Your task to perform on an android device: check the backup settings in the google photos Image 0: 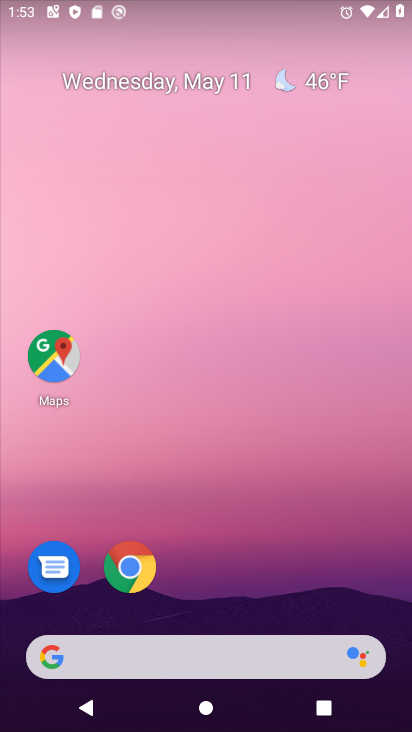
Step 0: drag from (193, 630) to (161, 3)
Your task to perform on an android device: check the backup settings in the google photos Image 1: 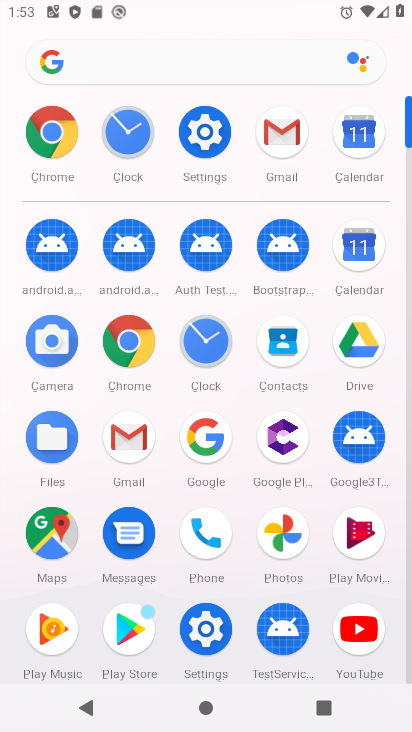
Step 1: click (281, 535)
Your task to perform on an android device: check the backup settings in the google photos Image 2: 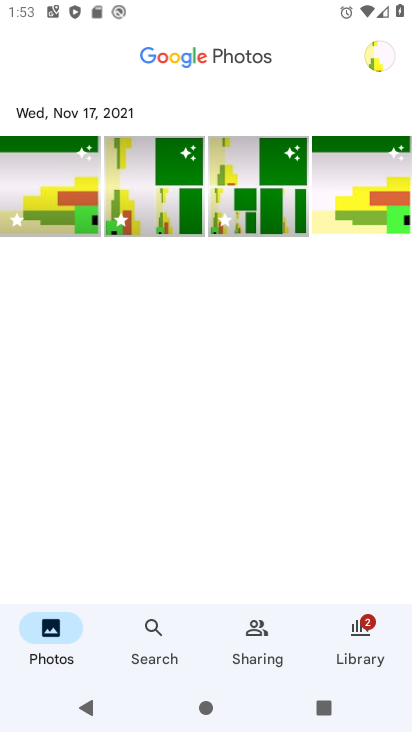
Step 2: click (388, 61)
Your task to perform on an android device: check the backup settings in the google photos Image 3: 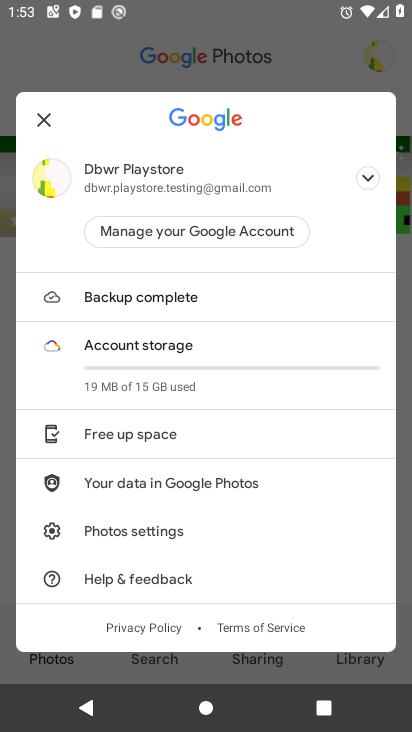
Step 3: click (148, 530)
Your task to perform on an android device: check the backup settings in the google photos Image 4: 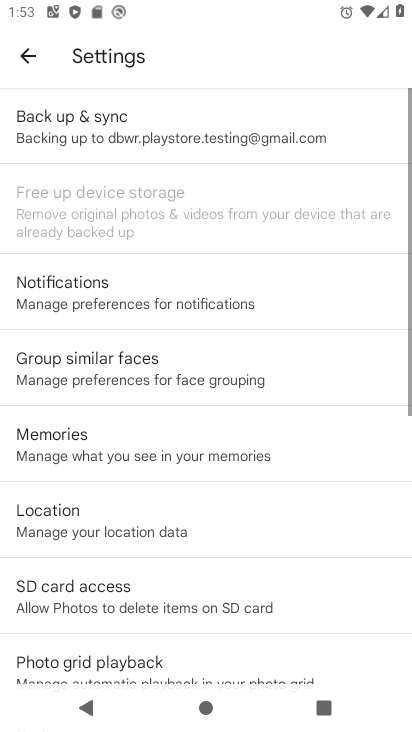
Step 4: click (129, 136)
Your task to perform on an android device: check the backup settings in the google photos Image 5: 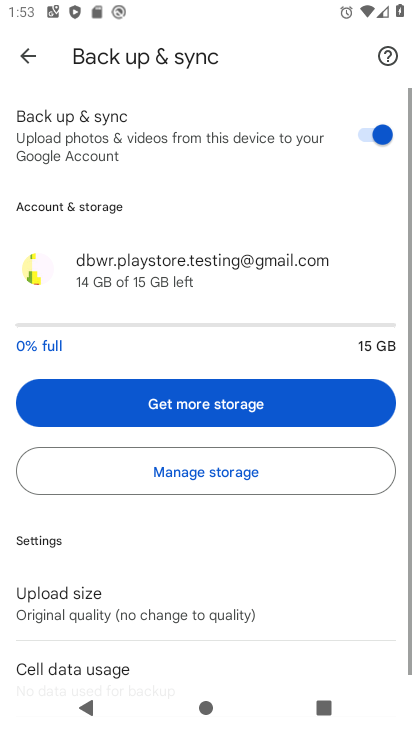
Step 5: task complete